Your task to perform on an android device: turn on bluetooth scan Image 0: 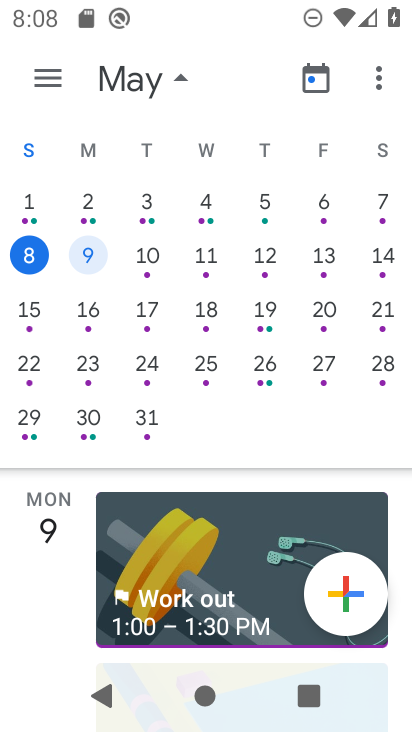
Step 0: press home button
Your task to perform on an android device: turn on bluetooth scan Image 1: 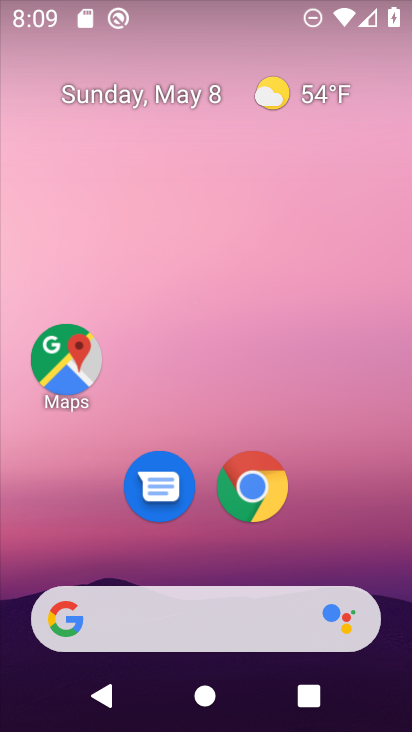
Step 1: drag from (140, 536) to (210, 250)
Your task to perform on an android device: turn on bluetooth scan Image 2: 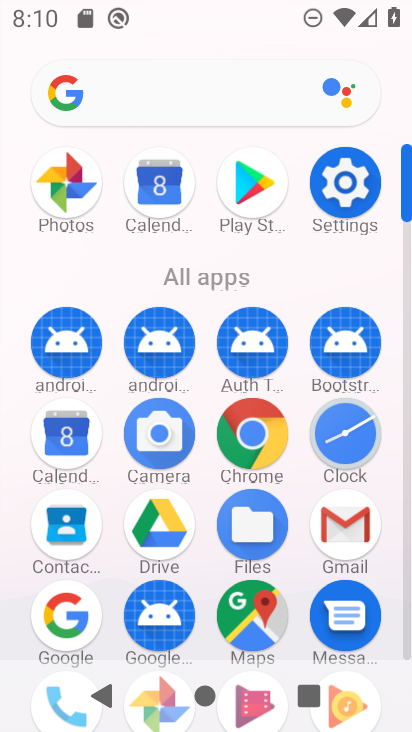
Step 2: drag from (201, 596) to (253, 340)
Your task to perform on an android device: turn on bluetooth scan Image 3: 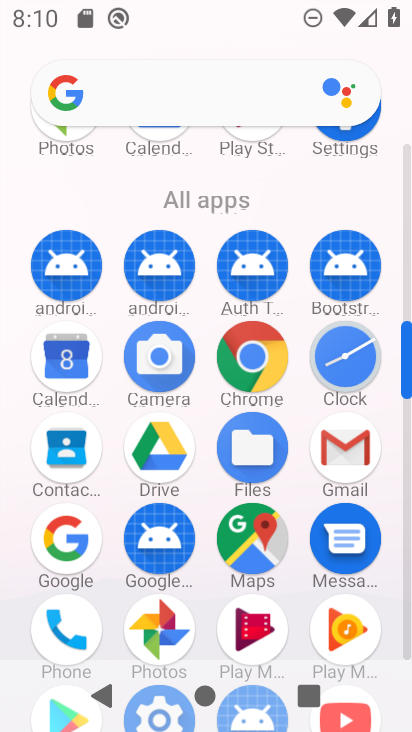
Step 3: click (341, 143)
Your task to perform on an android device: turn on bluetooth scan Image 4: 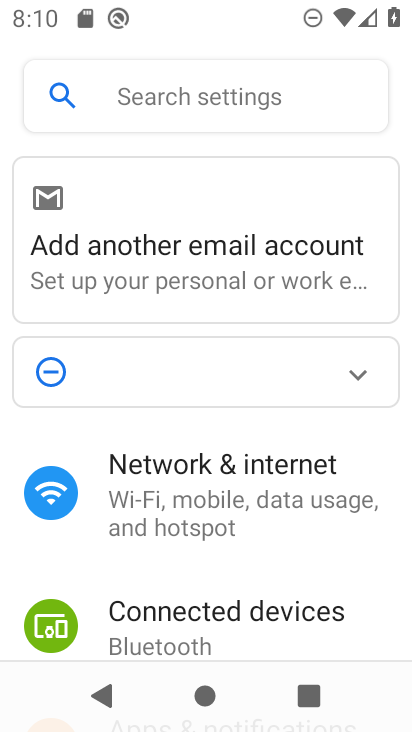
Step 4: drag from (212, 511) to (284, 332)
Your task to perform on an android device: turn on bluetooth scan Image 5: 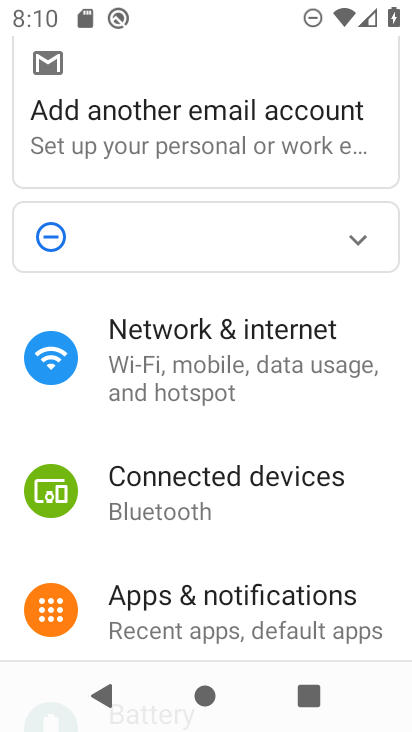
Step 5: drag from (239, 546) to (303, 298)
Your task to perform on an android device: turn on bluetooth scan Image 6: 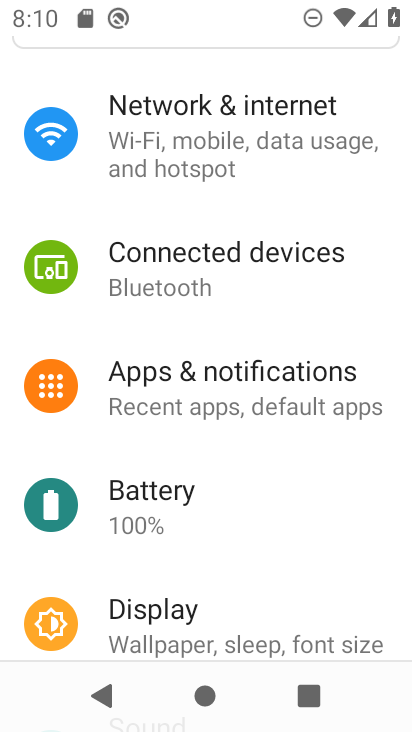
Step 6: drag from (233, 591) to (264, 307)
Your task to perform on an android device: turn on bluetooth scan Image 7: 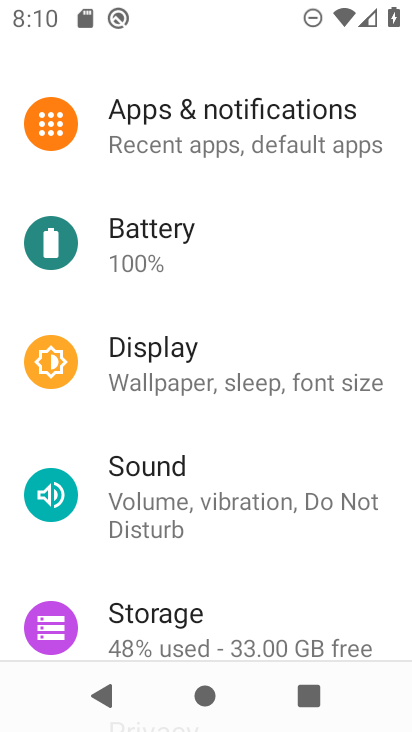
Step 7: drag from (242, 569) to (325, 263)
Your task to perform on an android device: turn on bluetooth scan Image 8: 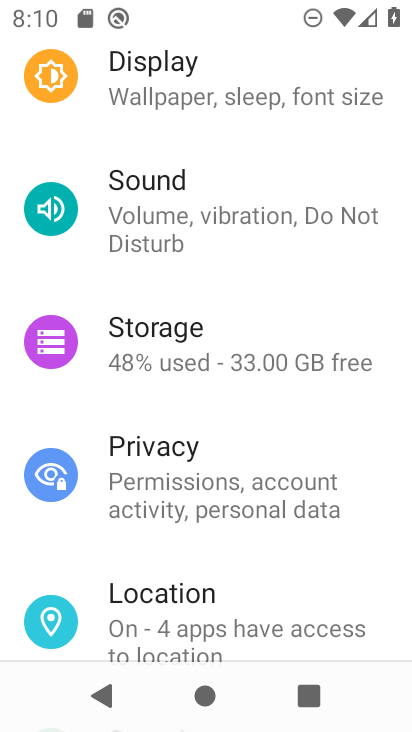
Step 8: click (152, 616)
Your task to perform on an android device: turn on bluetooth scan Image 9: 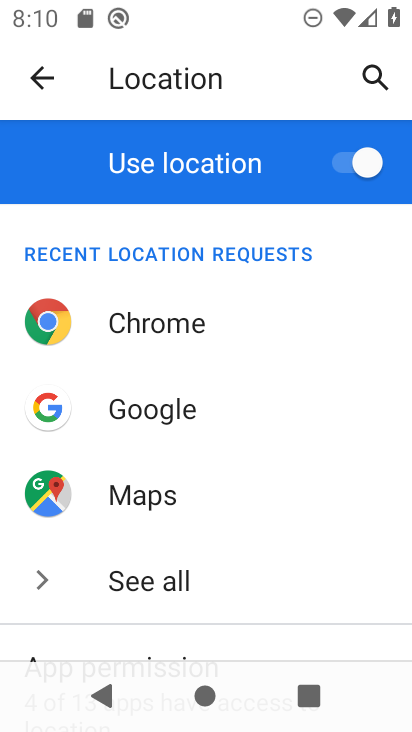
Step 9: drag from (235, 574) to (279, 212)
Your task to perform on an android device: turn on bluetooth scan Image 10: 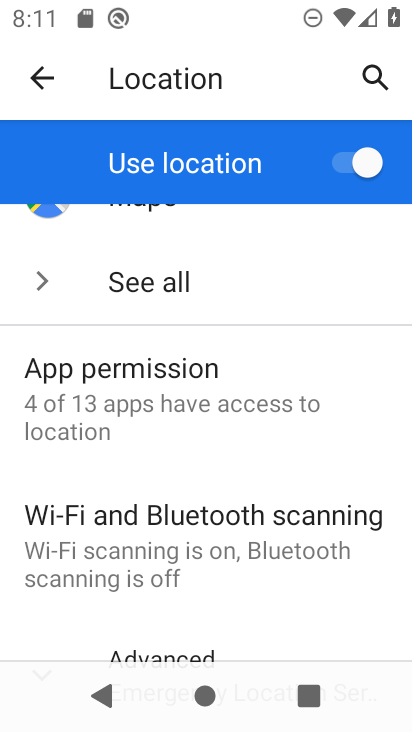
Step 10: click (146, 542)
Your task to perform on an android device: turn on bluetooth scan Image 11: 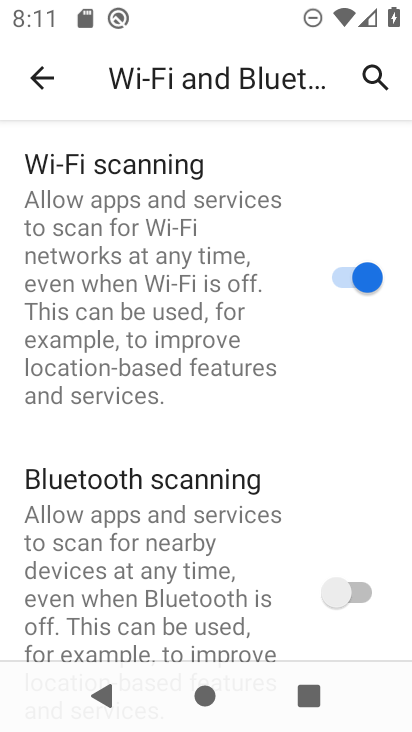
Step 11: task complete